Your task to perform on an android device: turn off location history Image 0: 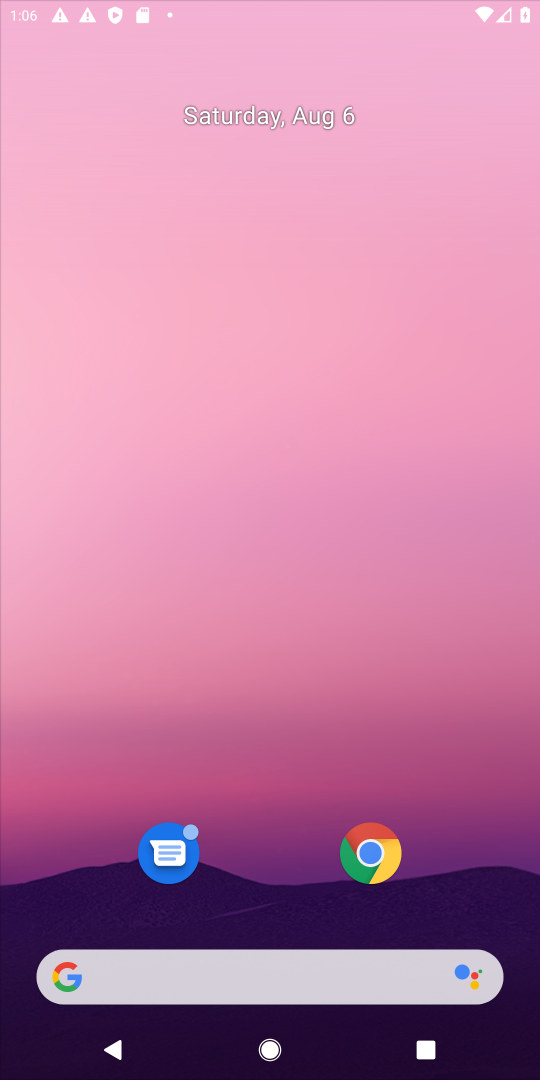
Step 0: press home button
Your task to perform on an android device: turn off location history Image 1: 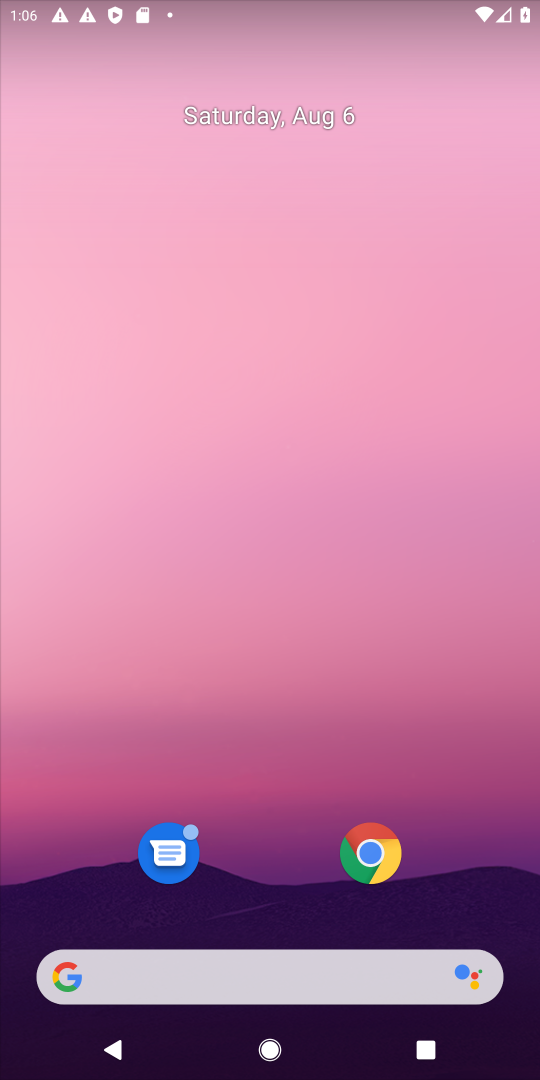
Step 1: drag from (482, 896) to (383, 67)
Your task to perform on an android device: turn off location history Image 2: 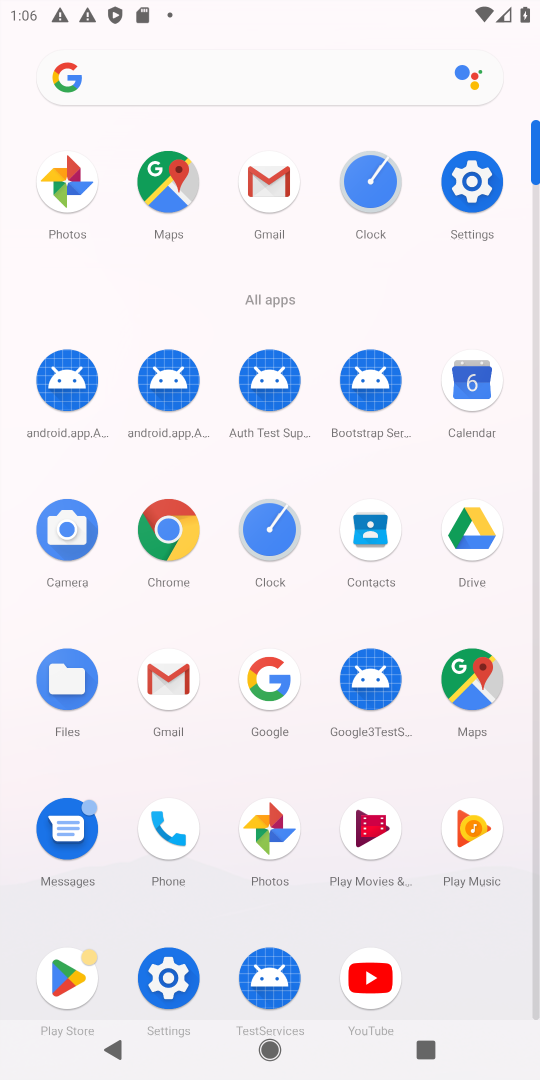
Step 2: click (470, 674)
Your task to perform on an android device: turn off location history Image 3: 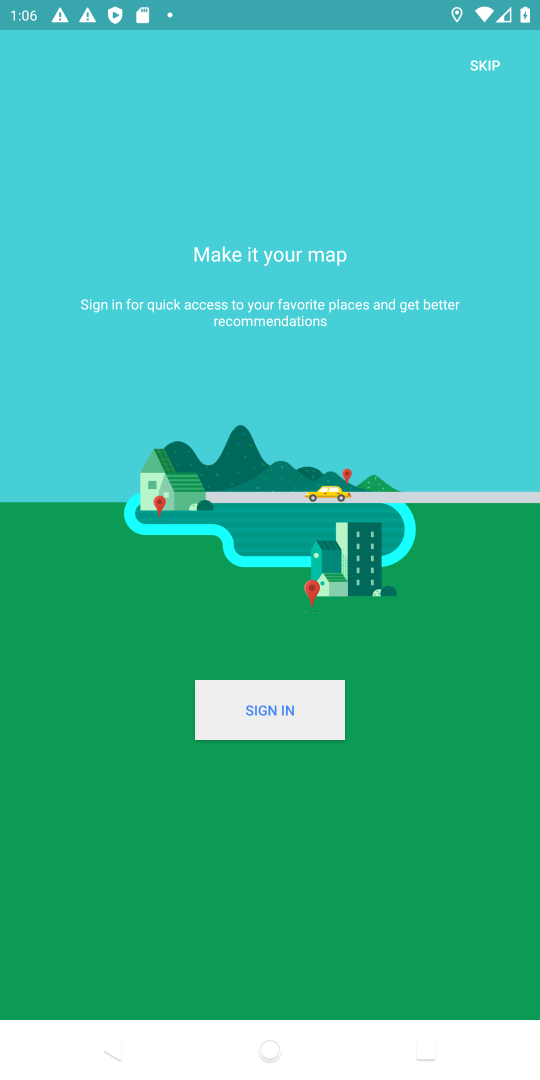
Step 3: click (484, 66)
Your task to perform on an android device: turn off location history Image 4: 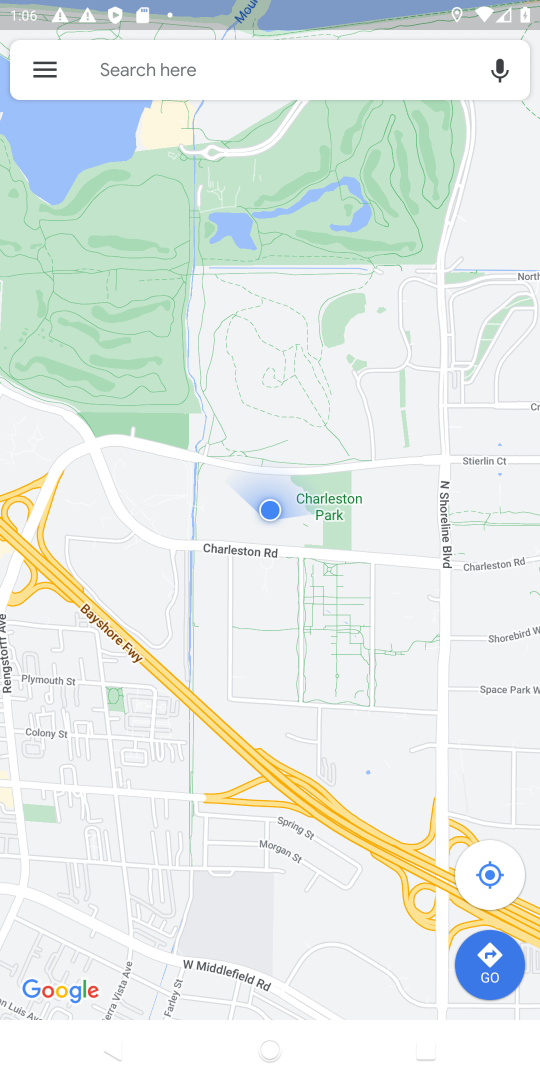
Step 4: click (42, 64)
Your task to perform on an android device: turn off location history Image 5: 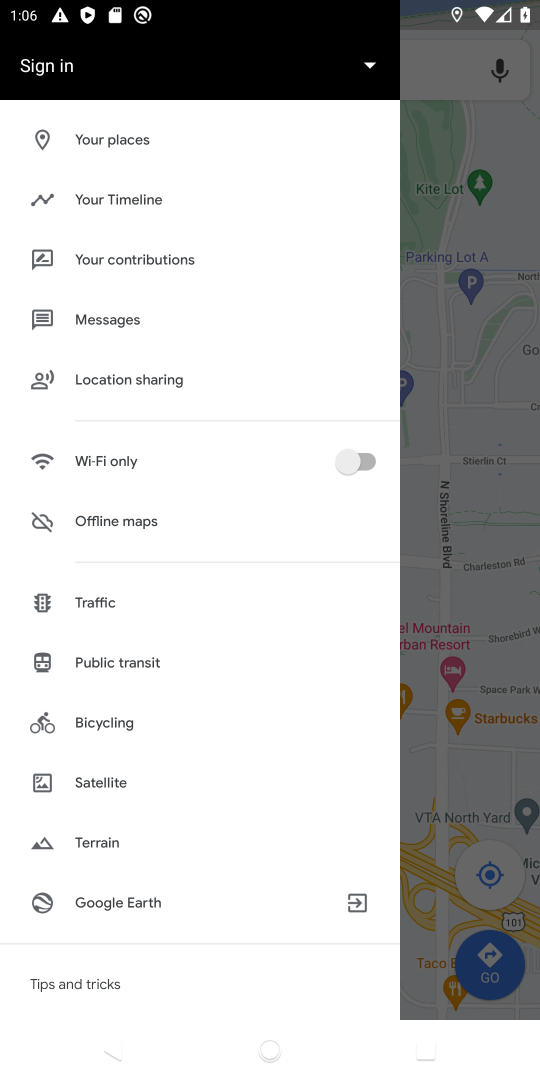
Step 5: drag from (228, 872) to (214, 372)
Your task to perform on an android device: turn off location history Image 6: 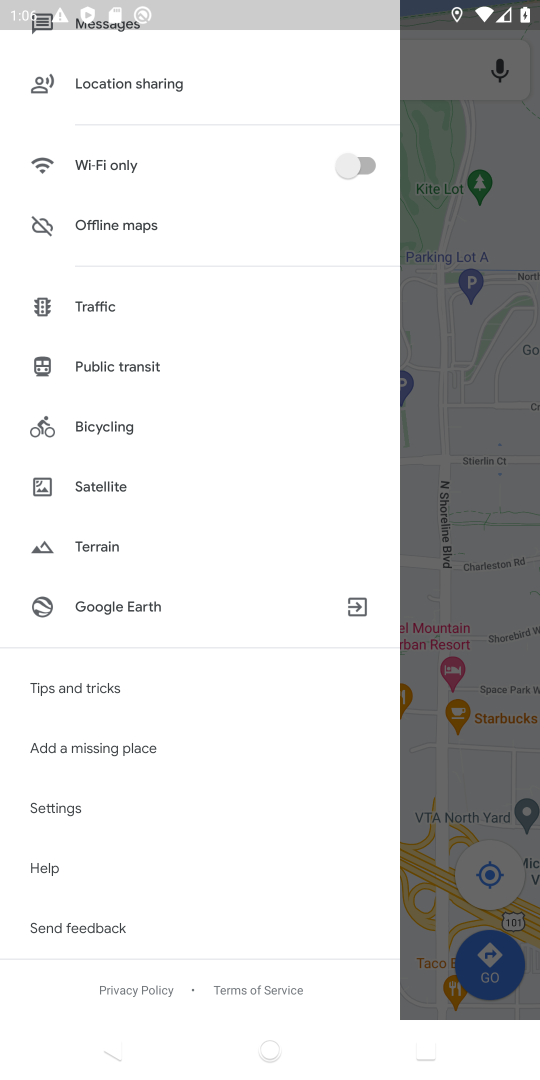
Step 6: click (44, 811)
Your task to perform on an android device: turn off location history Image 7: 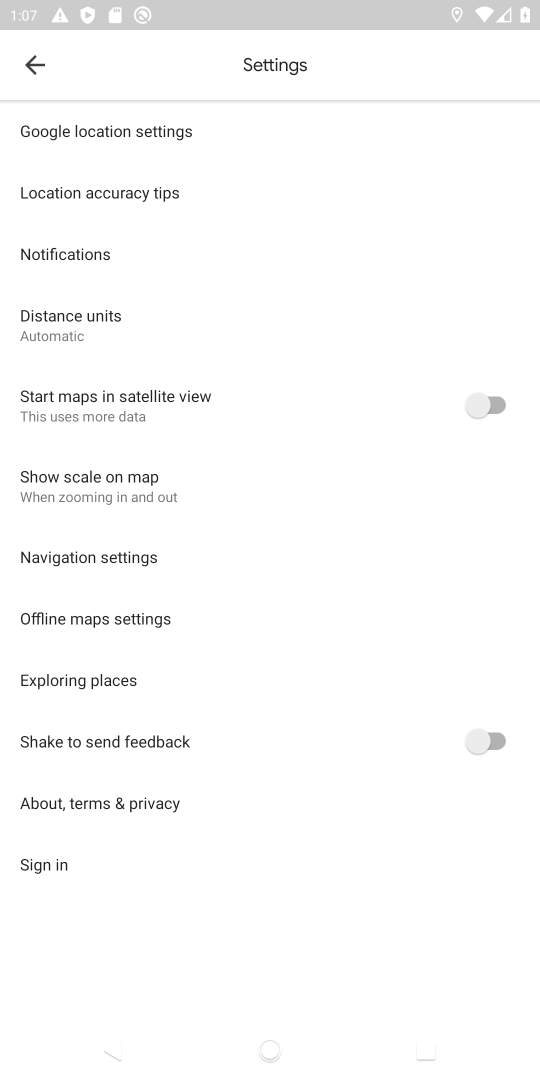
Step 7: drag from (251, 230) to (236, 569)
Your task to perform on an android device: turn off location history Image 8: 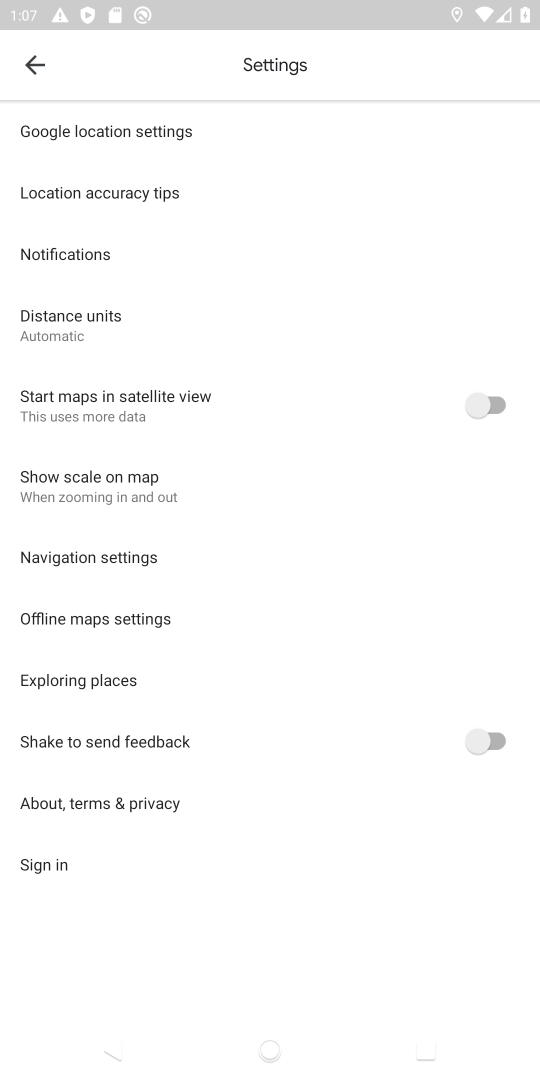
Step 8: click (86, 258)
Your task to perform on an android device: turn off location history Image 9: 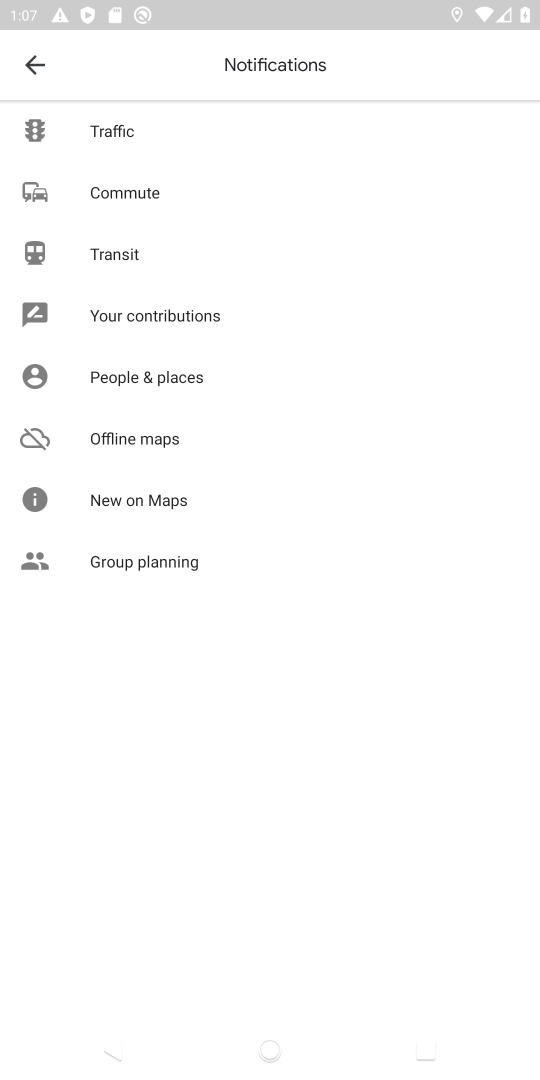
Step 9: press back button
Your task to perform on an android device: turn off location history Image 10: 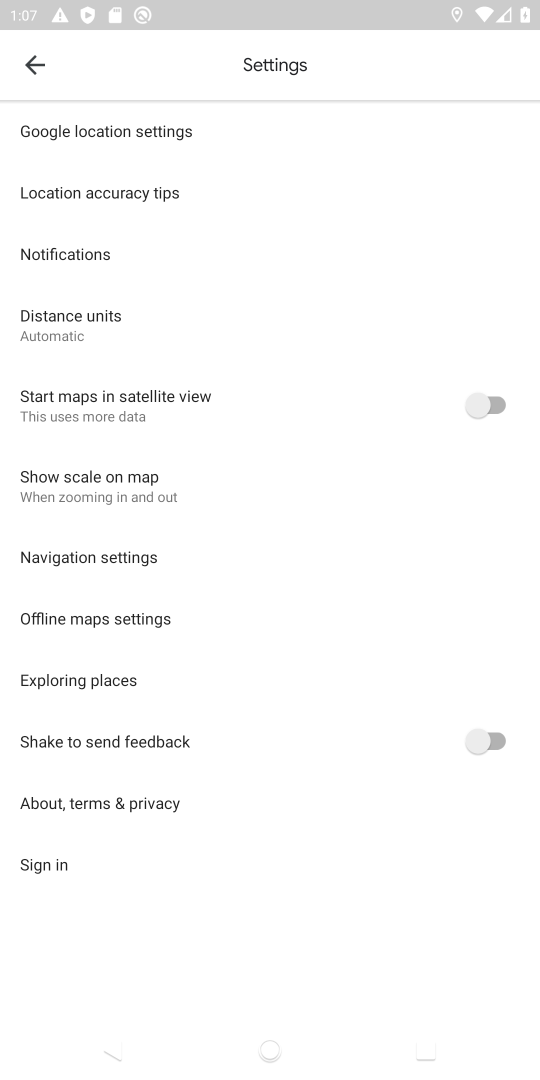
Step 10: press back button
Your task to perform on an android device: turn off location history Image 11: 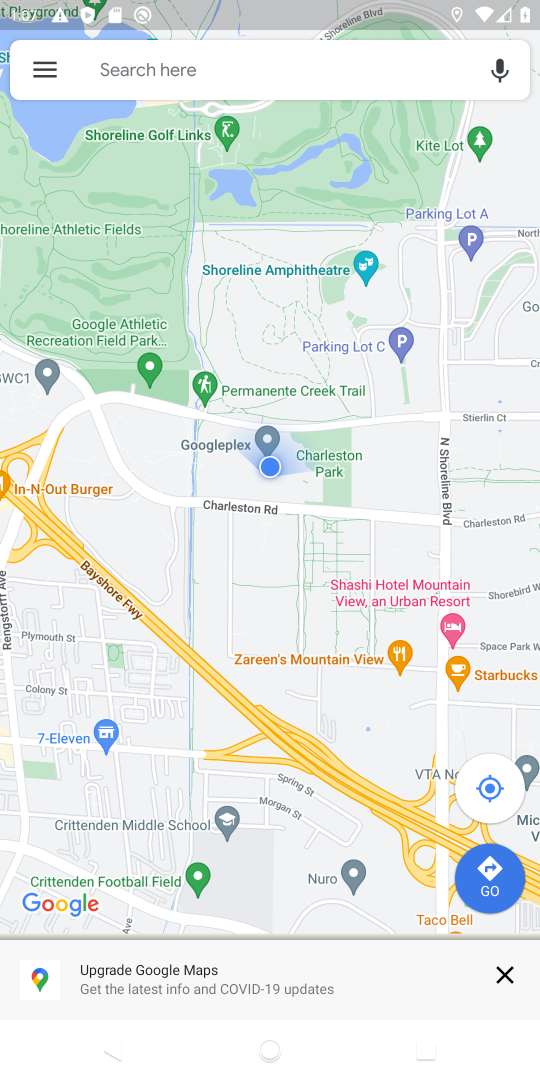
Step 11: click (38, 67)
Your task to perform on an android device: turn off location history Image 12: 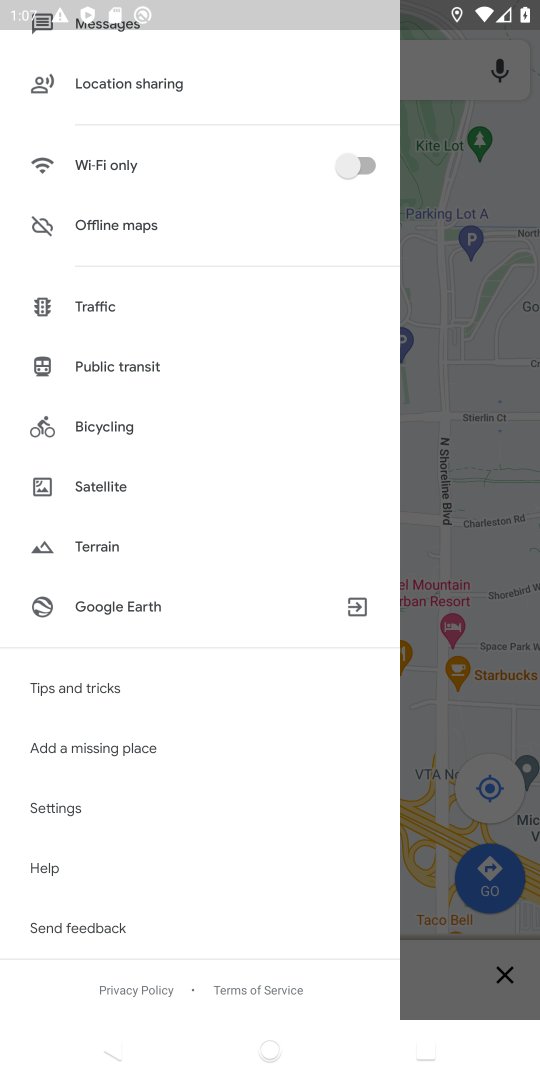
Step 12: click (71, 797)
Your task to perform on an android device: turn off location history Image 13: 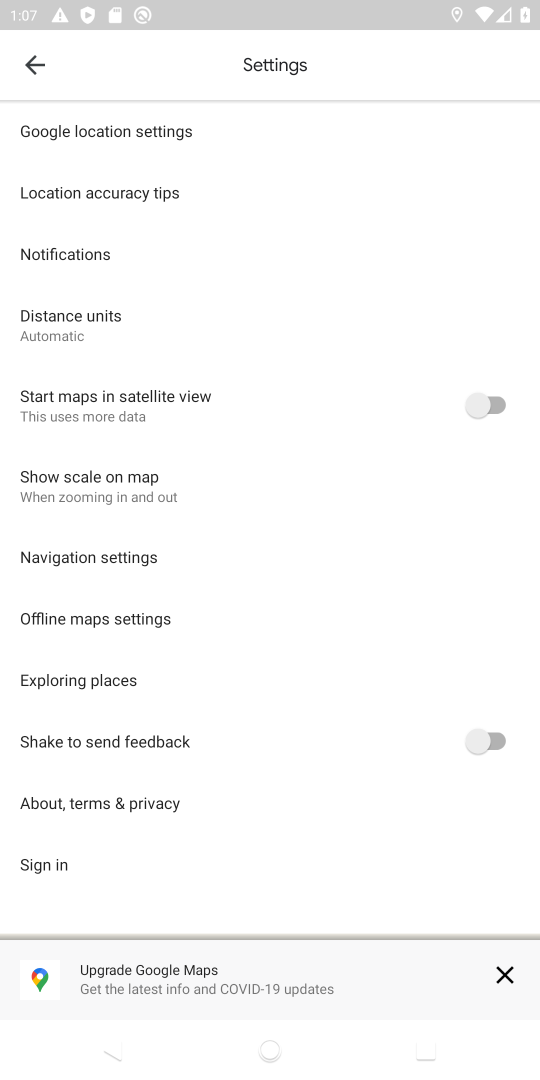
Step 13: task complete